Your task to perform on an android device: toggle pop-ups in chrome Image 0: 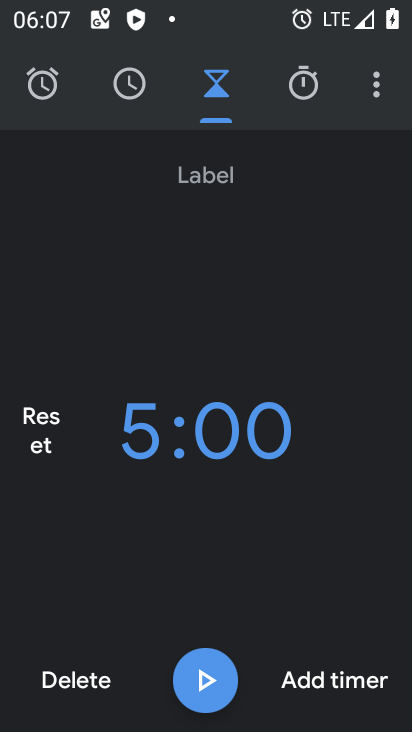
Step 0: press home button
Your task to perform on an android device: toggle pop-ups in chrome Image 1: 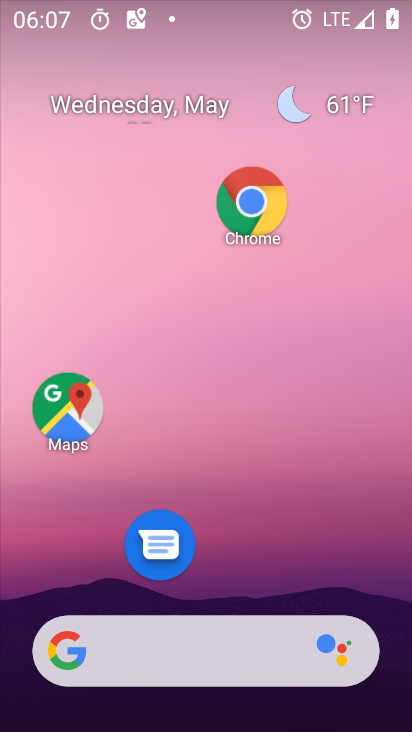
Step 1: click (253, 206)
Your task to perform on an android device: toggle pop-ups in chrome Image 2: 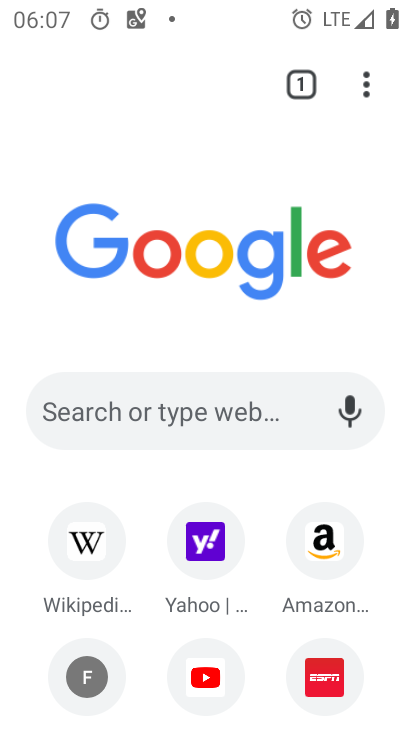
Step 2: click (366, 86)
Your task to perform on an android device: toggle pop-ups in chrome Image 3: 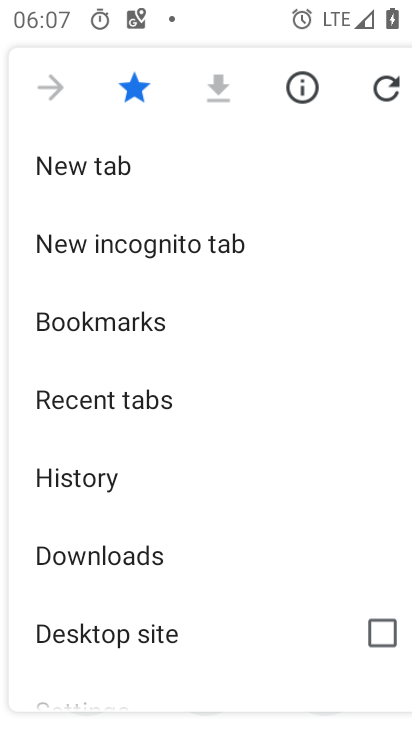
Step 3: drag from (161, 654) to (156, 257)
Your task to perform on an android device: toggle pop-ups in chrome Image 4: 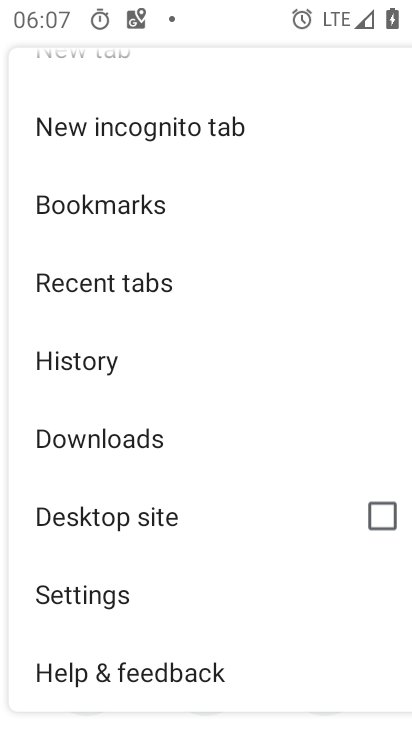
Step 4: click (107, 606)
Your task to perform on an android device: toggle pop-ups in chrome Image 5: 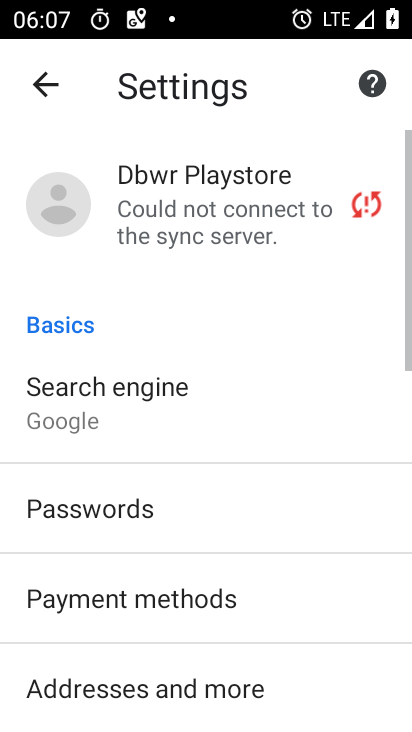
Step 5: drag from (139, 715) to (144, 405)
Your task to perform on an android device: toggle pop-ups in chrome Image 6: 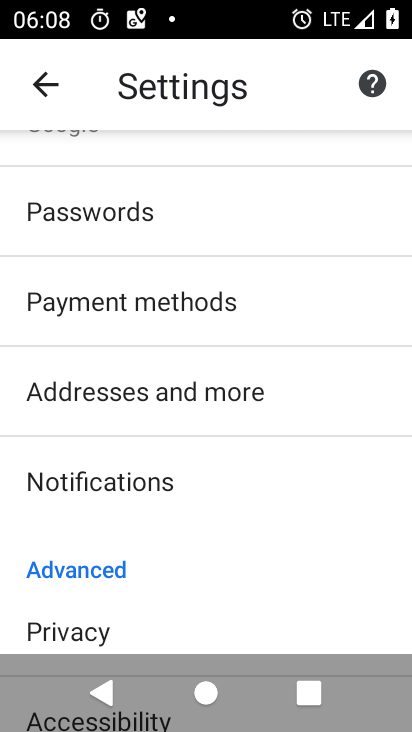
Step 6: drag from (182, 623) to (169, 381)
Your task to perform on an android device: toggle pop-ups in chrome Image 7: 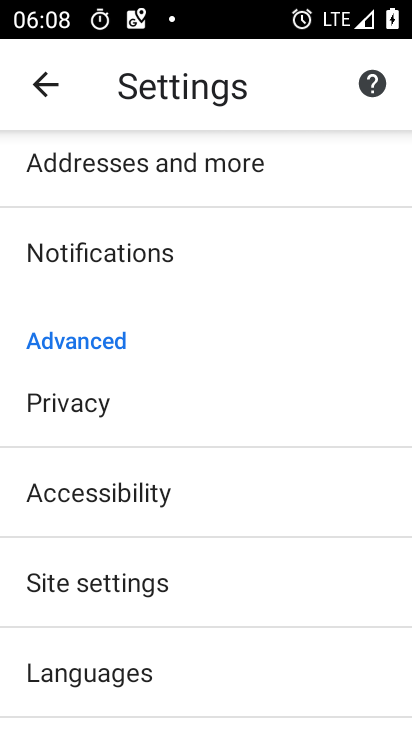
Step 7: click (142, 579)
Your task to perform on an android device: toggle pop-ups in chrome Image 8: 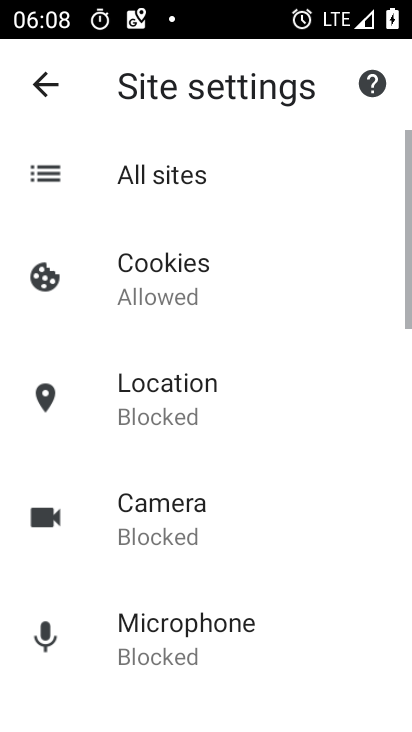
Step 8: drag from (237, 687) to (247, 338)
Your task to perform on an android device: toggle pop-ups in chrome Image 9: 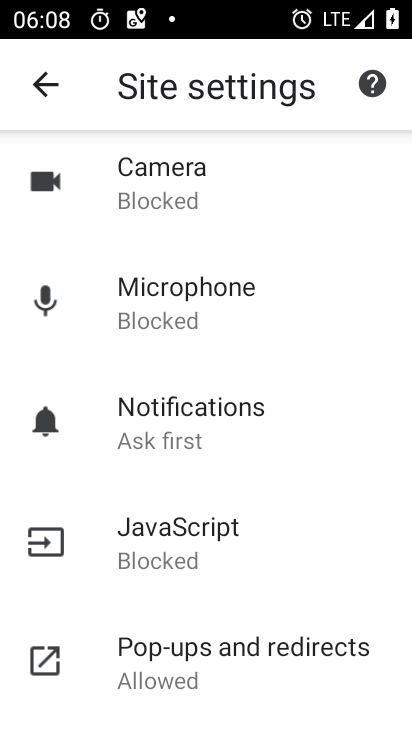
Step 9: drag from (267, 700) to (284, 335)
Your task to perform on an android device: toggle pop-ups in chrome Image 10: 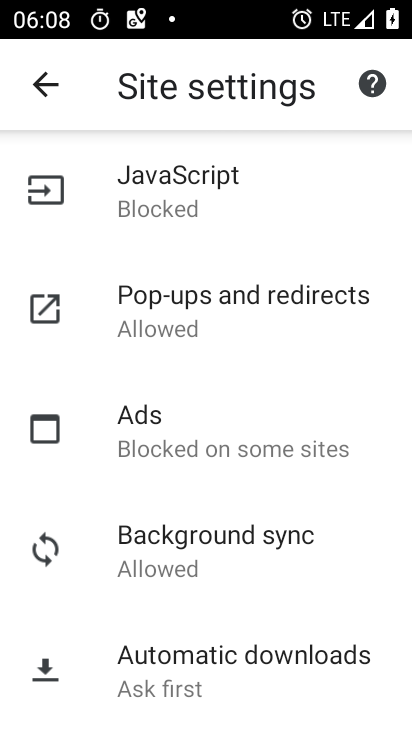
Step 10: click (226, 304)
Your task to perform on an android device: toggle pop-ups in chrome Image 11: 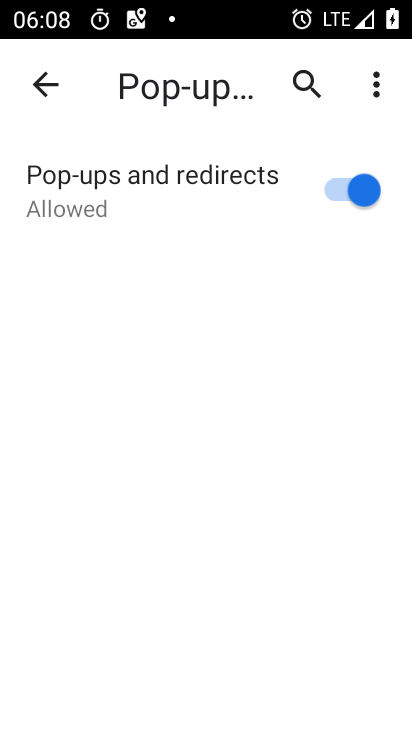
Step 11: click (343, 181)
Your task to perform on an android device: toggle pop-ups in chrome Image 12: 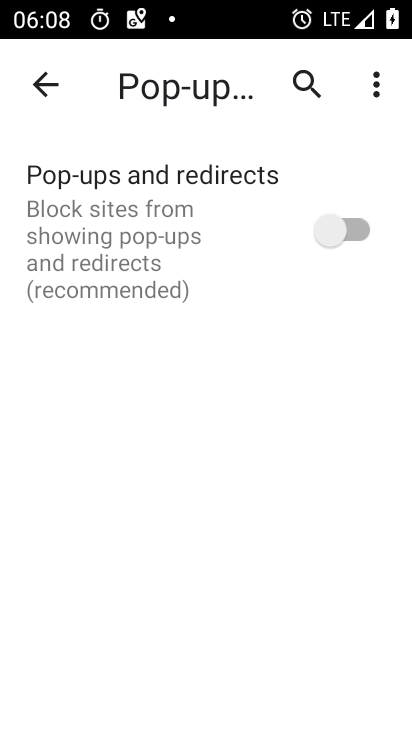
Step 12: task complete